Your task to perform on an android device: Open Maps and search for coffee Image 0: 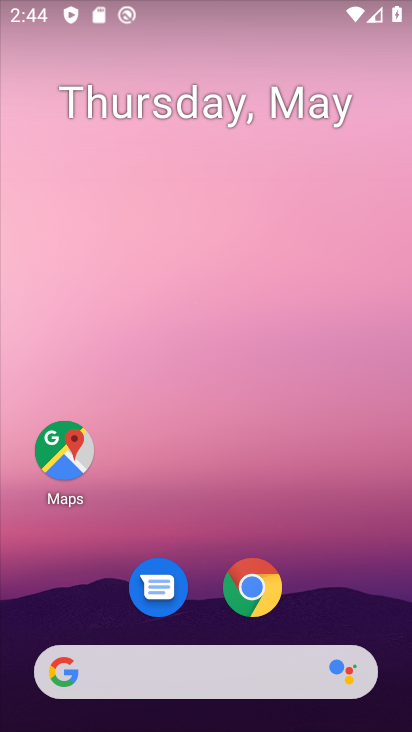
Step 0: drag from (202, 508) to (165, 1)
Your task to perform on an android device: Open Maps and search for coffee Image 1: 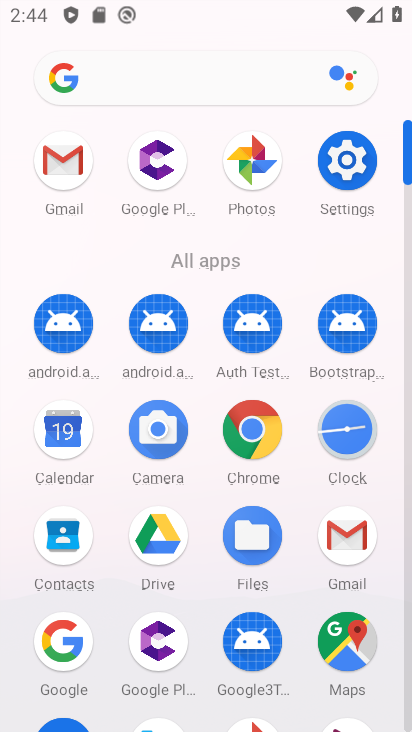
Step 1: click (84, 429)
Your task to perform on an android device: Open Maps and search for coffee Image 2: 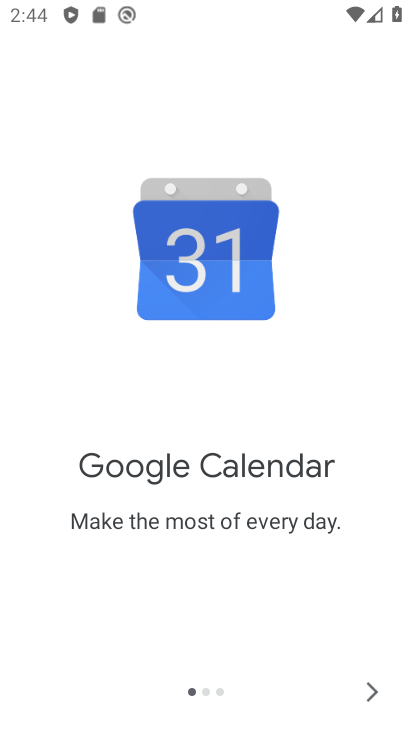
Step 2: click (360, 686)
Your task to perform on an android device: Open Maps and search for coffee Image 3: 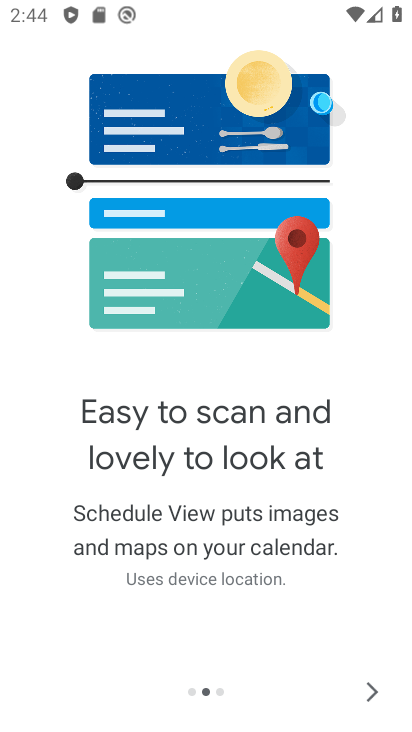
Step 3: click (360, 686)
Your task to perform on an android device: Open Maps and search for coffee Image 4: 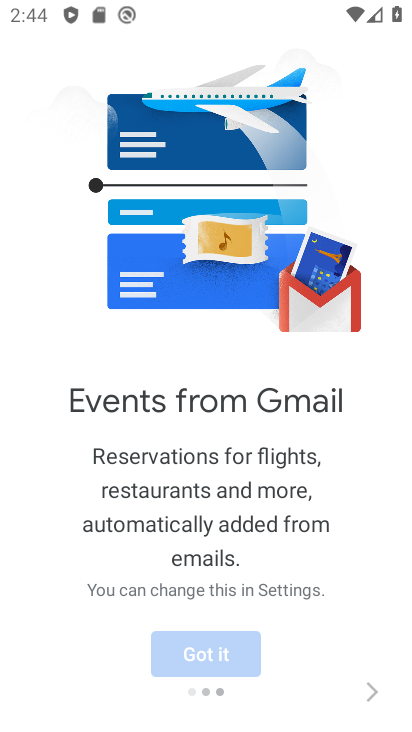
Step 4: click (360, 686)
Your task to perform on an android device: Open Maps and search for coffee Image 5: 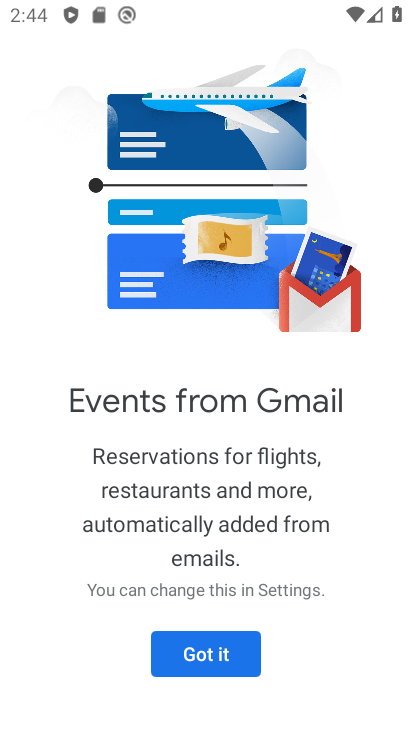
Step 5: click (231, 632)
Your task to perform on an android device: Open Maps and search for coffee Image 6: 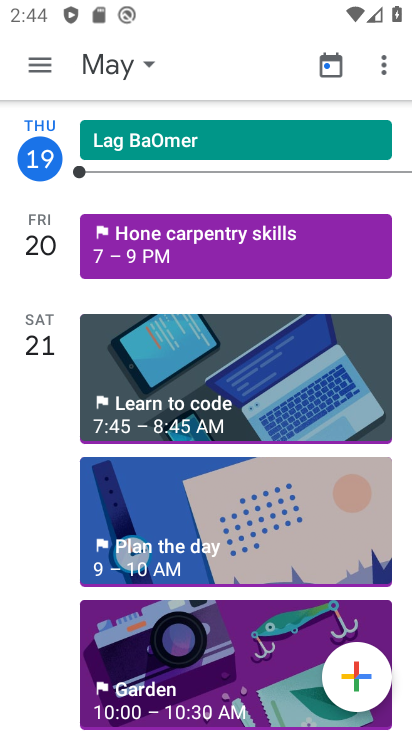
Step 6: click (41, 64)
Your task to perform on an android device: Open Maps and search for coffee Image 7: 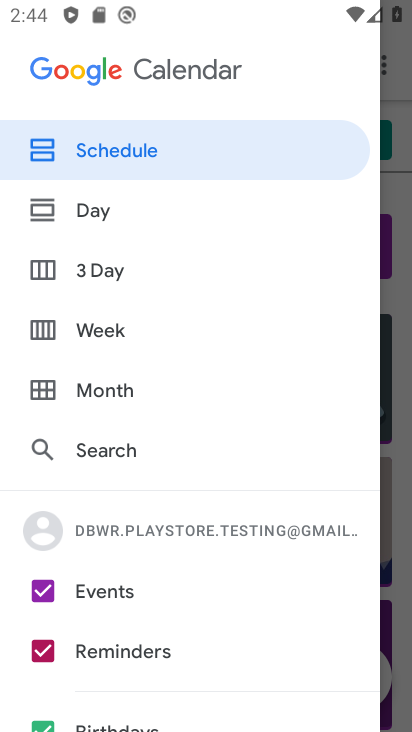
Step 7: press home button
Your task to perform on an android device: Open Maps and search for coffee Image 8: 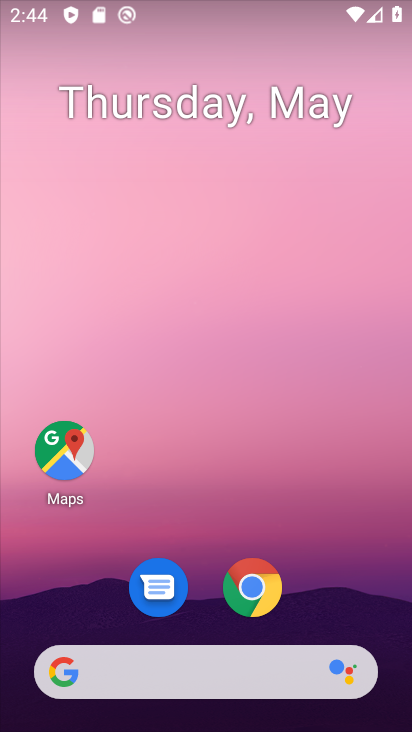
Step 8: click (77, 450)
Your task to perform on an android device: Open Maps and search for coffee Image 9: 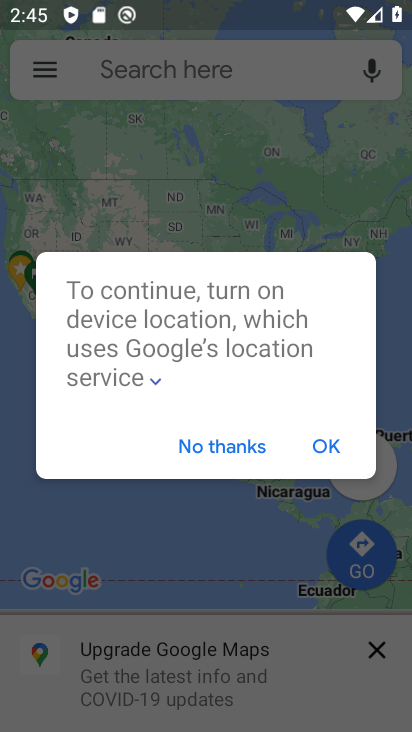
Step 9: click (315, 437)
Your task to perform on an android device: Open Maps and search for coffee Image 10: 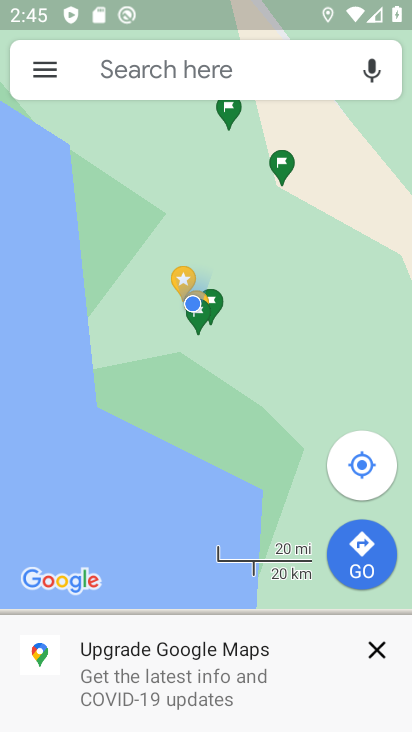
Step 10: click (162, 54)
Your task to perform on an android device: Open Maps and search for coffee Image 11: 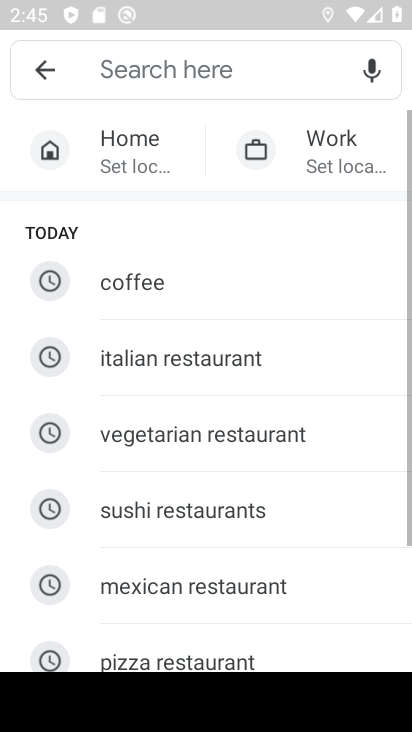
Step 11: click (183, 295)
Your task to perform on an android device: Open Maps and search for coffee Image 12: 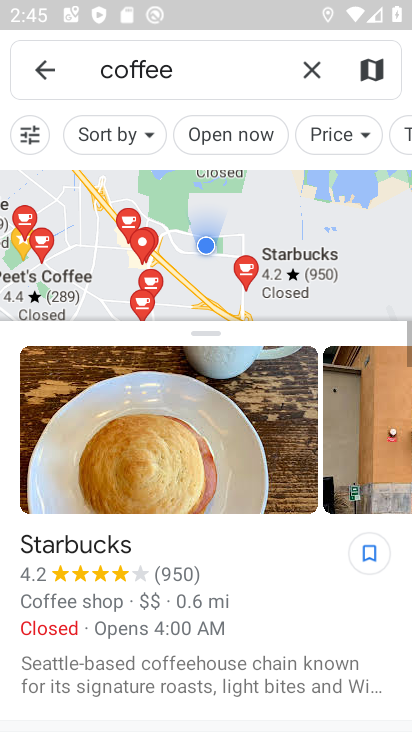
Step 12: task complete